Your task to perform on an android device: toggle location history Image 0: 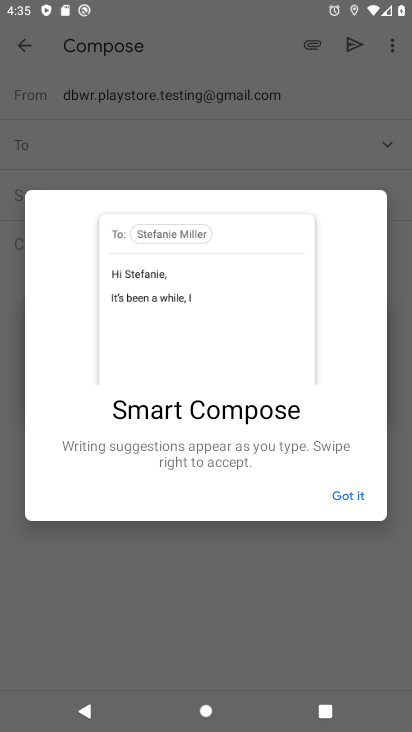
Step 0: drag from (303, 569) to (321, 313)
Your task to perform on an android device: toggle location history Image 1: 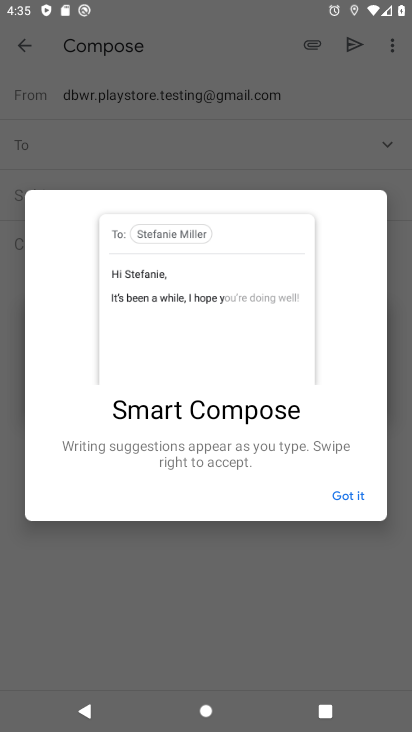
Step 1: press home button
Your task to perform on an android device: toggle location history Image 2: 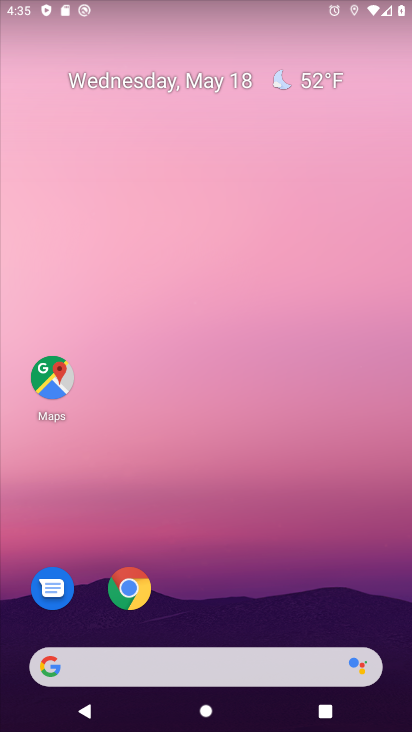
Step 2: drag from (215, 579) to (245, 123)
Your task to perform on an android device: toggle location history Image 3: 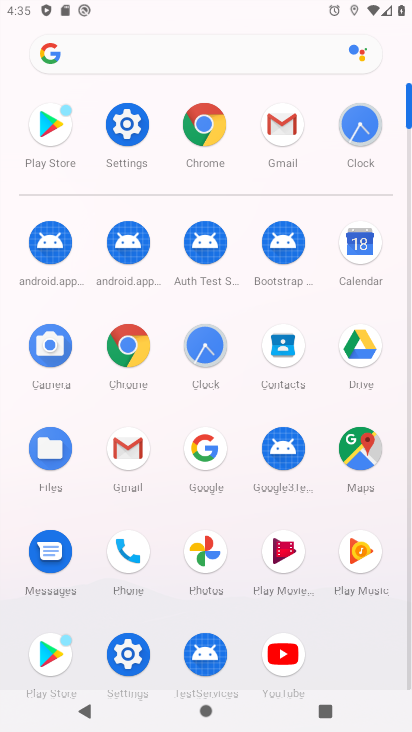
Step 3: click (126, 126)
Your task to perform on an android device: toggle location history Image 4: 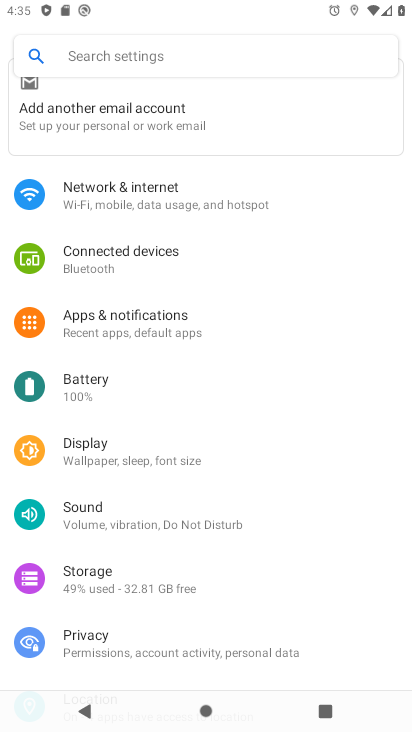
Step 4: drag from (223, 538) to (276, 182)
Your task to perform on an android device: toggle location history Image 5: 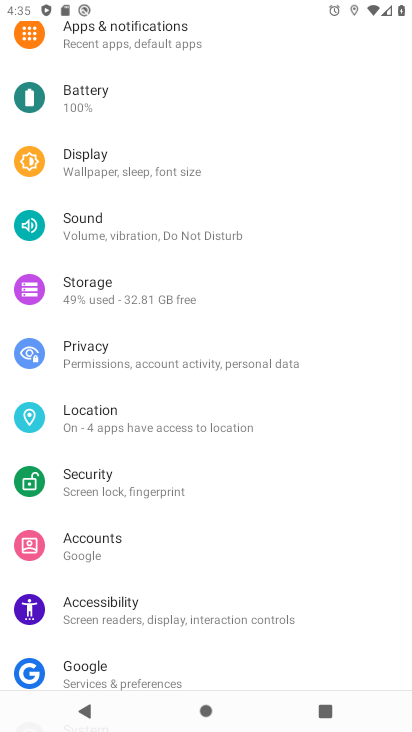
Step 5: drag from (194, 480) to (299, 222)
Your task to perform on an android device: toggle location history Image 6: 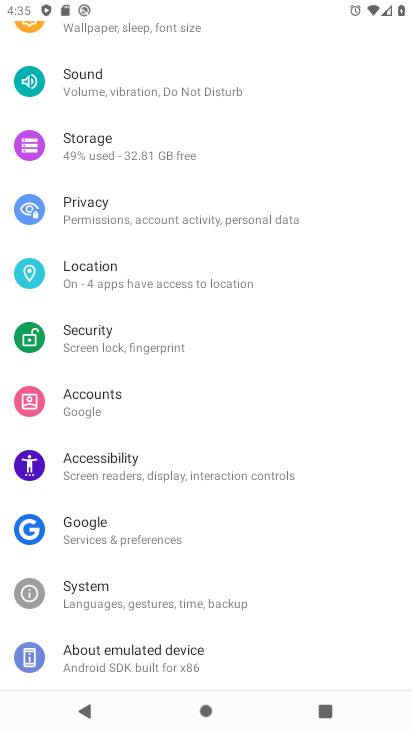
Step 6: click (127, 273)
Your task to perform on an android device: toggle location history Image 7: 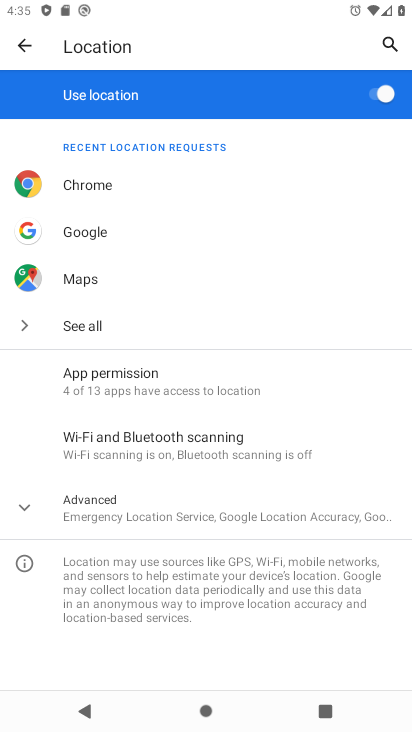
Step 7: click (143, 506)
Your task to perform on an android device: toggle location history Image 8: 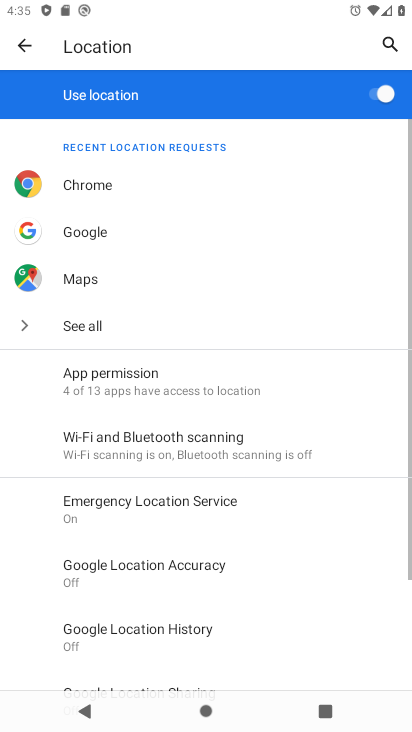
Step 8: drag from (191, 489) to (291, 7)
Your task to perform on an android device: toggle location history Image 9: 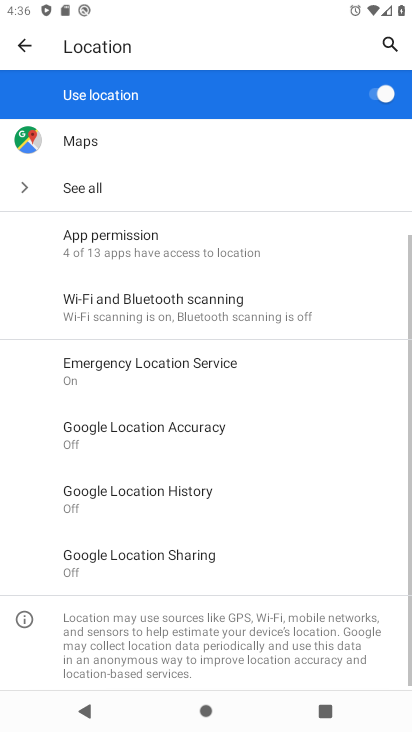
Step 9: click (170, 493)
Your task to perform on an android device: toggle location history Image 10: 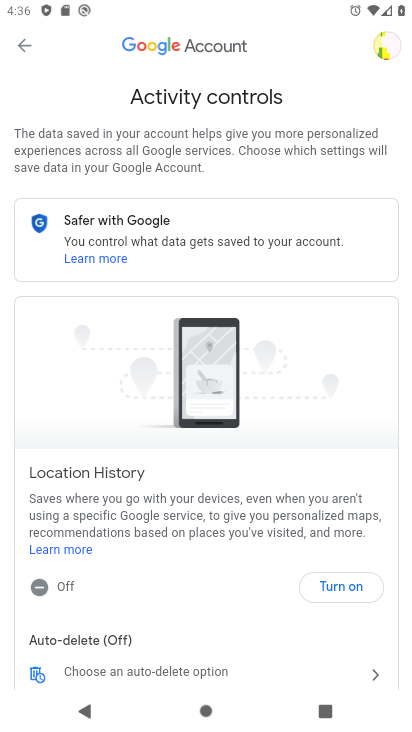
Step 10: drag from (290, 566) to (323, 206)
Your task to perform on an android device: toggle location history Image 11: 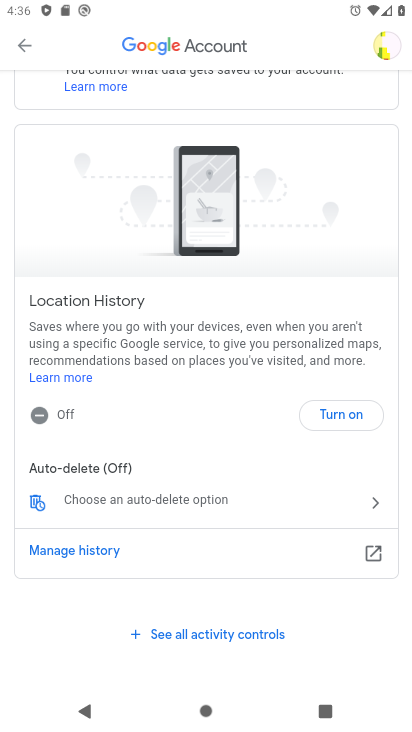
Step 11: click (341, 424)
Your task to perform on an android device: toggle location history Image 12: 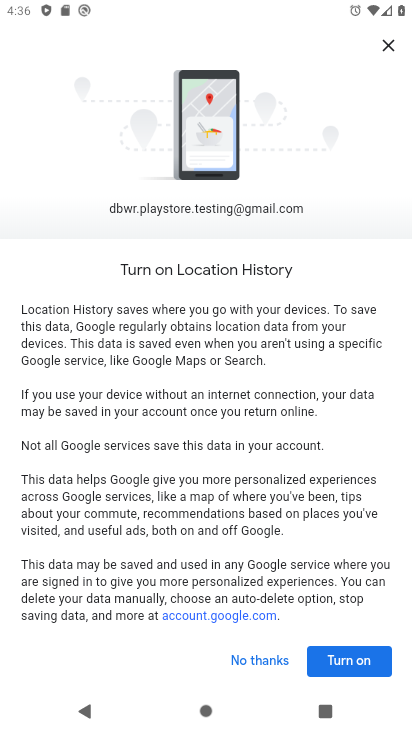
Step 12: click (341, 675)
Your task to perform on an android device: toggle location history Image 13: 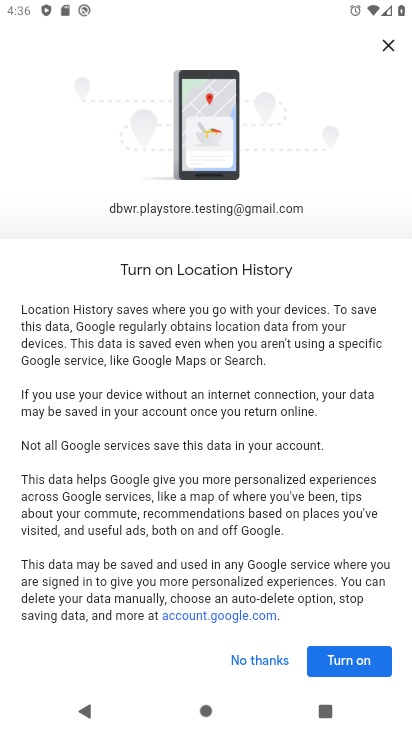
Step 13: click (339, 661)
Your task to perform on an android device: toggle location history Image 14: 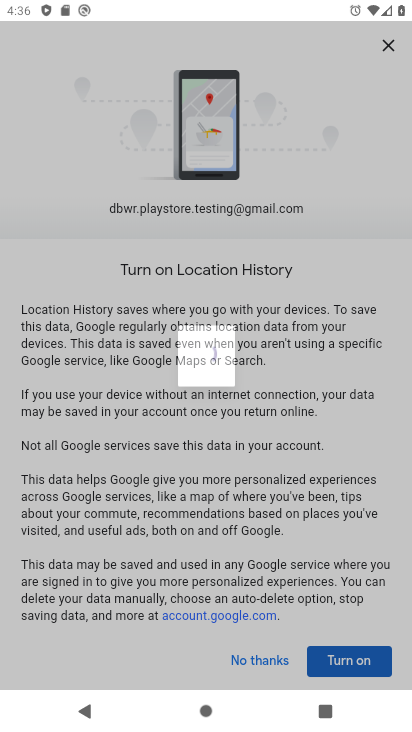
Step 14: click (362, 671)
Your task to perform on an android device: toggle location history Image 15: 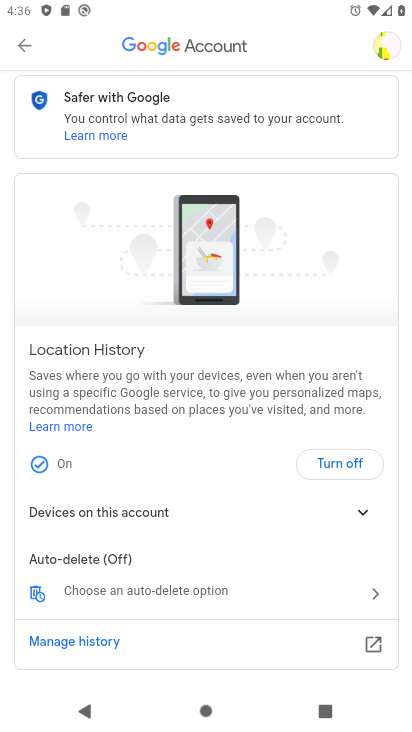
Step 15: task complete